Your task to perform on an android device: Search for bose soundlink mini on newegg.com, select the first entry, add it to the cart, then select checkout. Image 0: 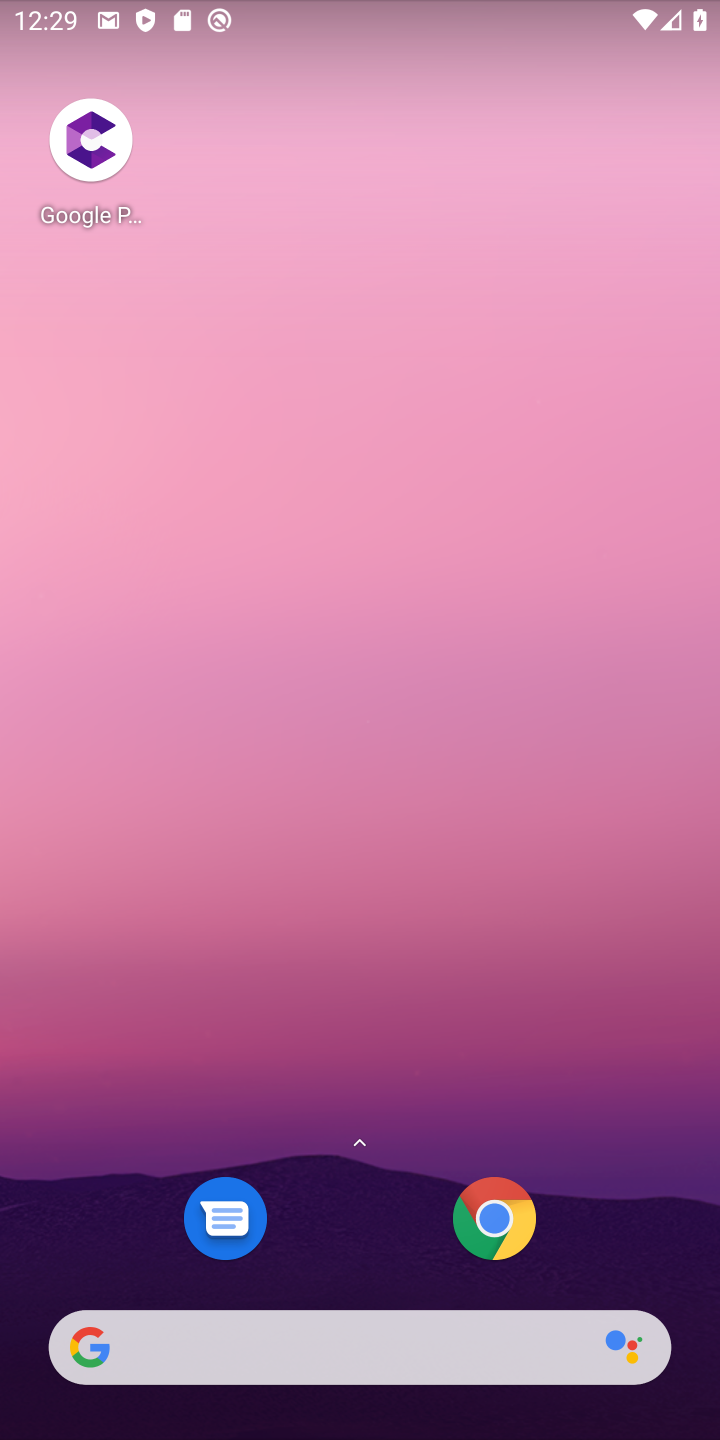
Step 0: drag from (393, 801) to (380, 153)
Your task to perform on an android device: Search for bose soundlink mini on newegg.com, select the first entry, add it to the cart, then select checkout. Image 1: 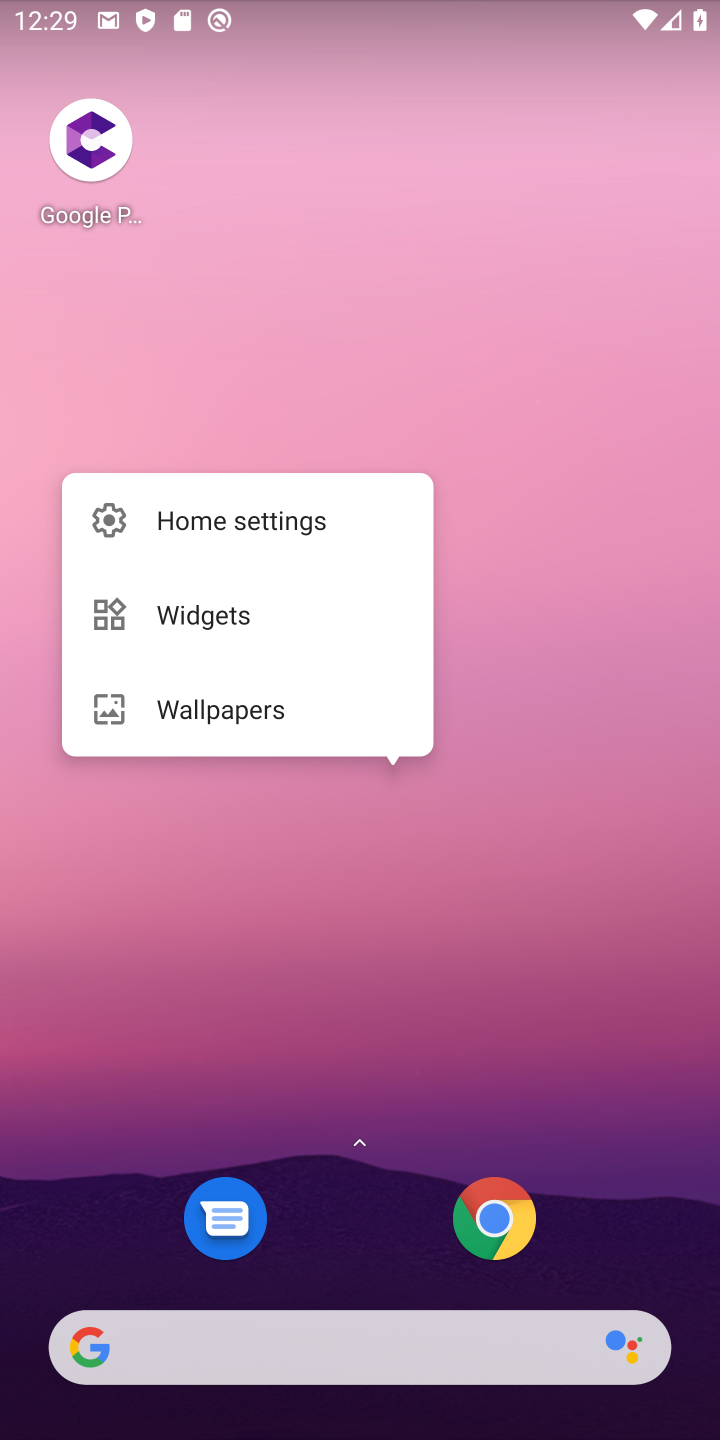
Step 1: click (650, 751)
Your task to perform on an android device: Search for bose soundlink mini on newegg.com, select the first entry, add it to the cart, then select checkout. Image 2: 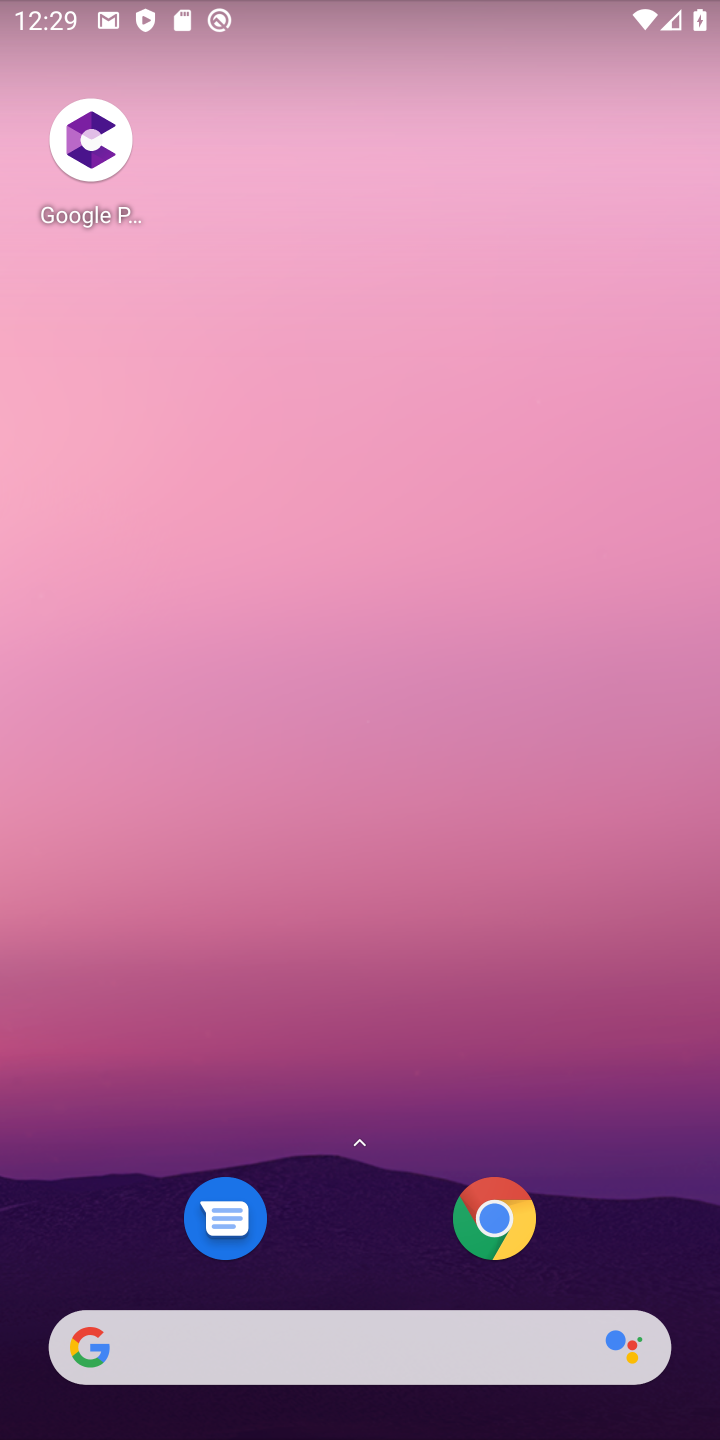
Step 2: drag from (376, 1243) to (675, 56)
Your task to perform on an android device: Search for bose soundlink mini on newegg.com, select the first entry, add it to the cart, then select checkout. Image 3: 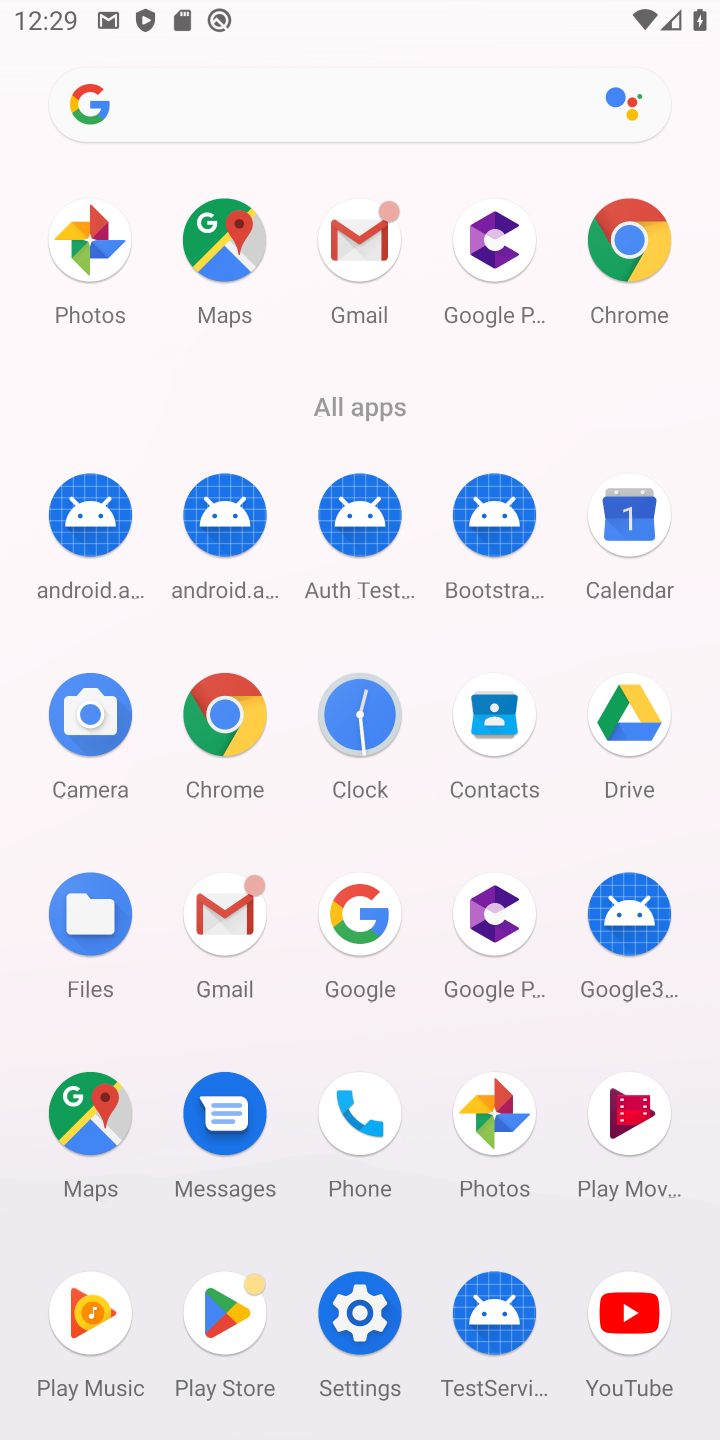
Step 3: click (191, 699)
Your task to perform on an android device: Search for bose soundlink mini on newegg.com, select the first entry, add it to the cart, then select checkout. Image 4: 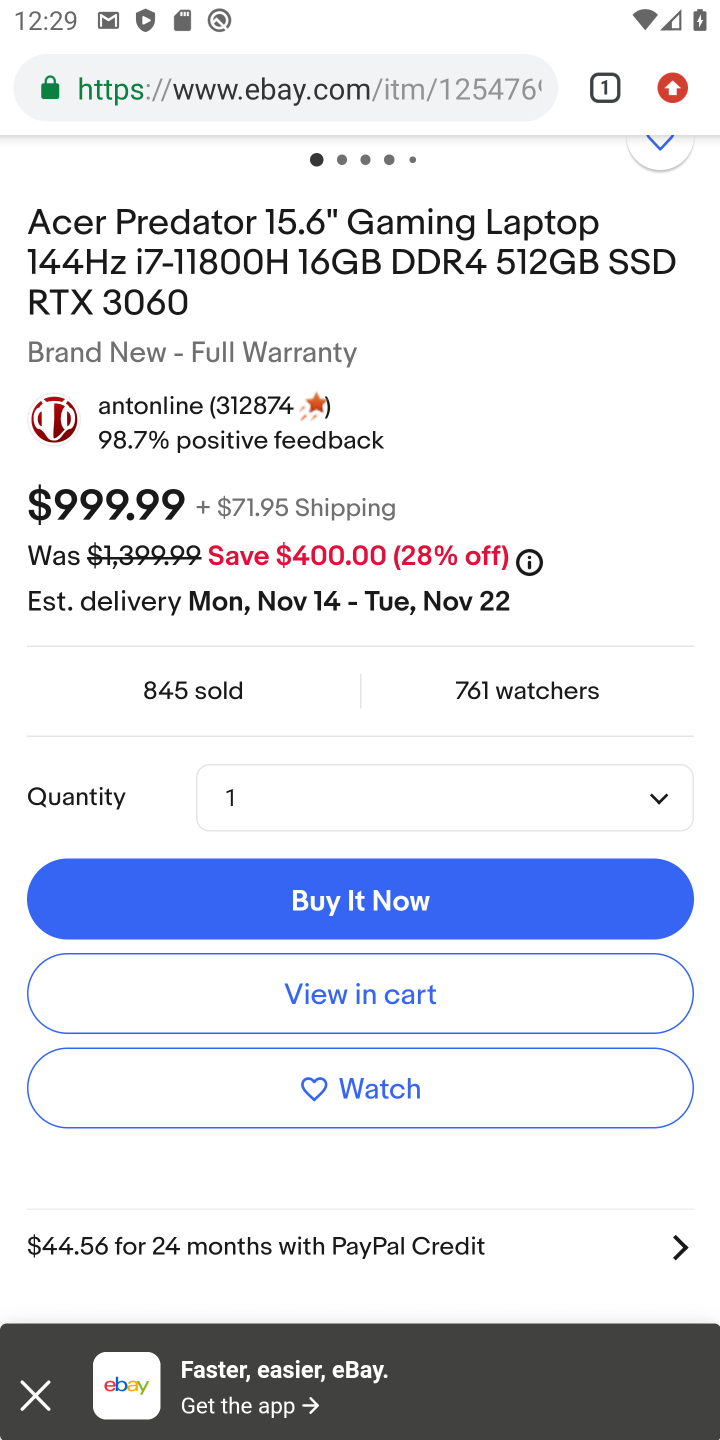
Step 4: drag from (345, 112) to (263, 939)
Your task to perform on an android device: Search for bose soundlink mini on newegg.com, select the first entry, add it to the cart, then select checkout. Image 5: 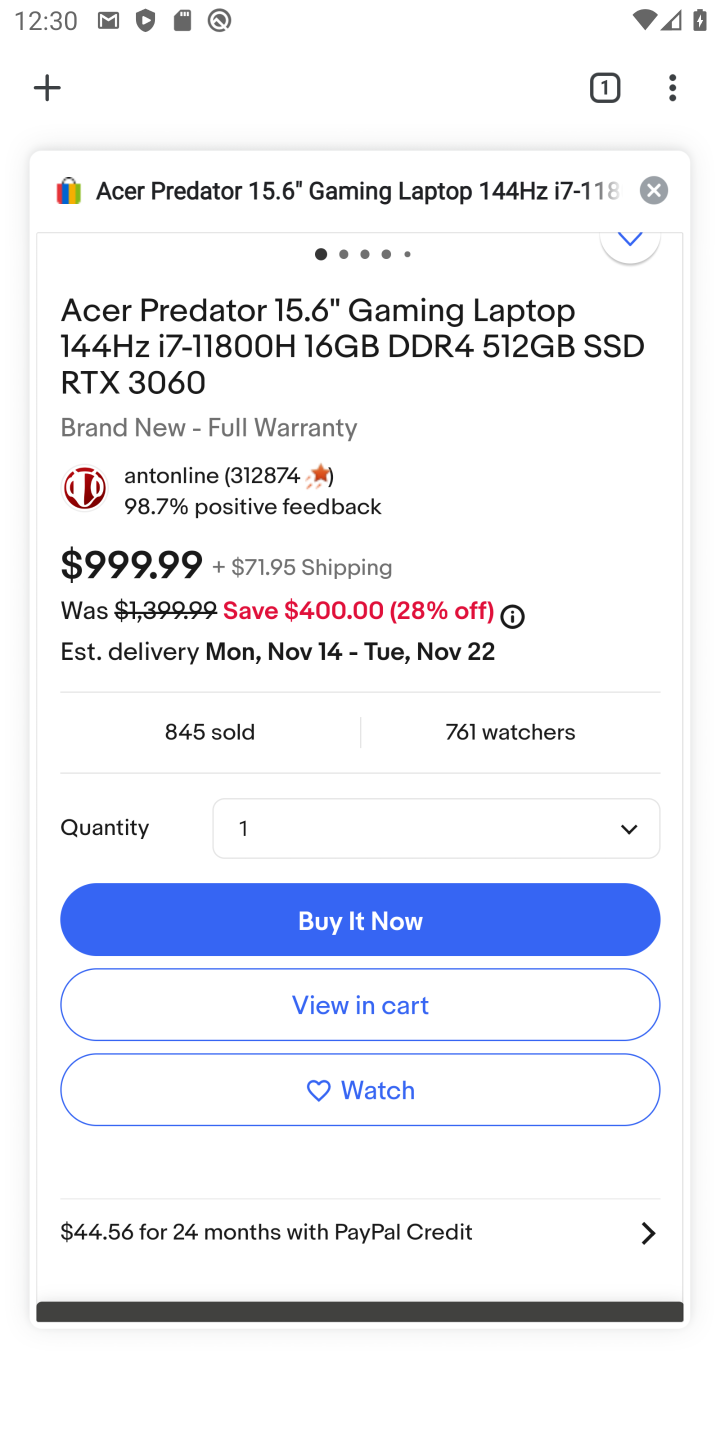
Step 5: click (220, 89)
Your task to perform on an android device: Search for bose soundlink mini on newegg.com, select the first entry, add it to the cart, then select checkout. Image 6: 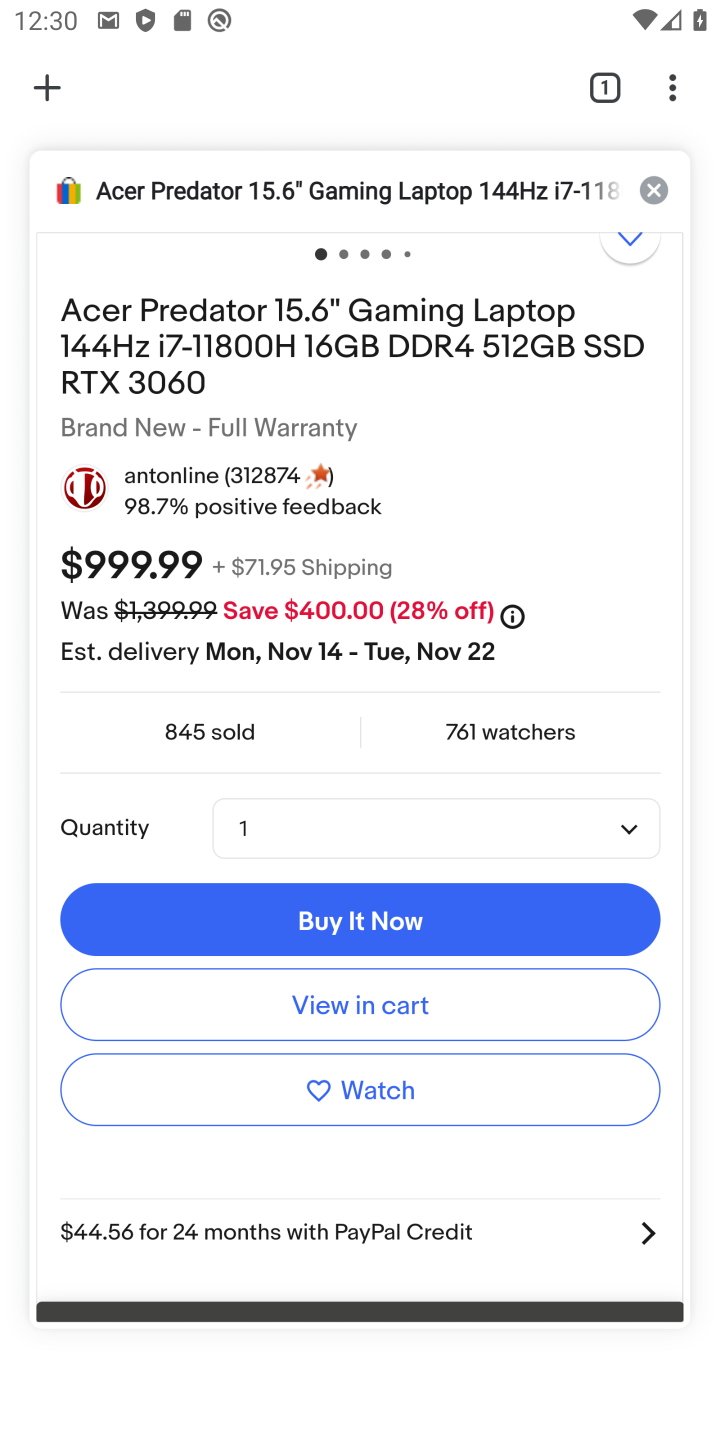
Step 6: click (544, 460)
Your task to perform on an android device: Search for bose soundlink mini on newegg.com, select the first entry, add it to the cart, then select checkout. Image 7: 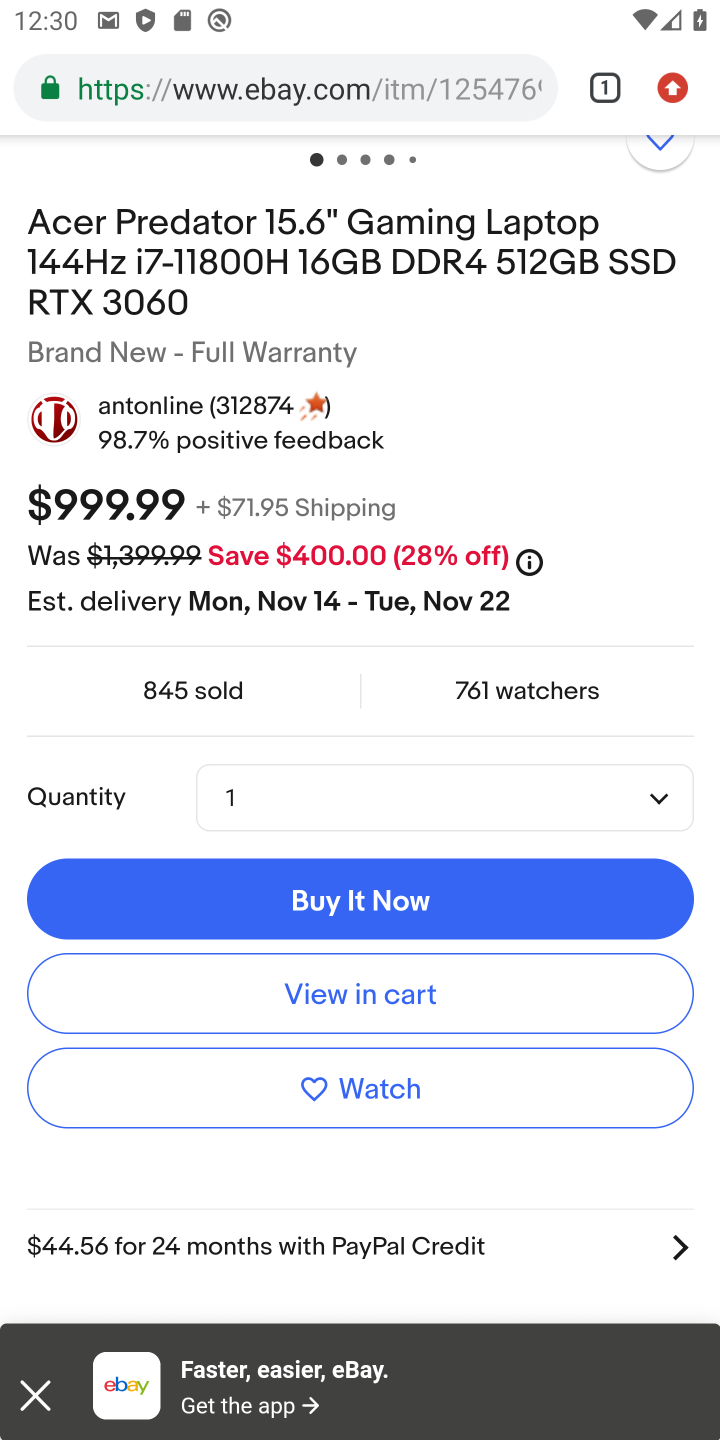
Step 7: click (238, 92)
Your task to perform on an android device: Search for bose soundlink mini on newegg.com, select the first entry, add it to the cart, then select checkout. Image 8: 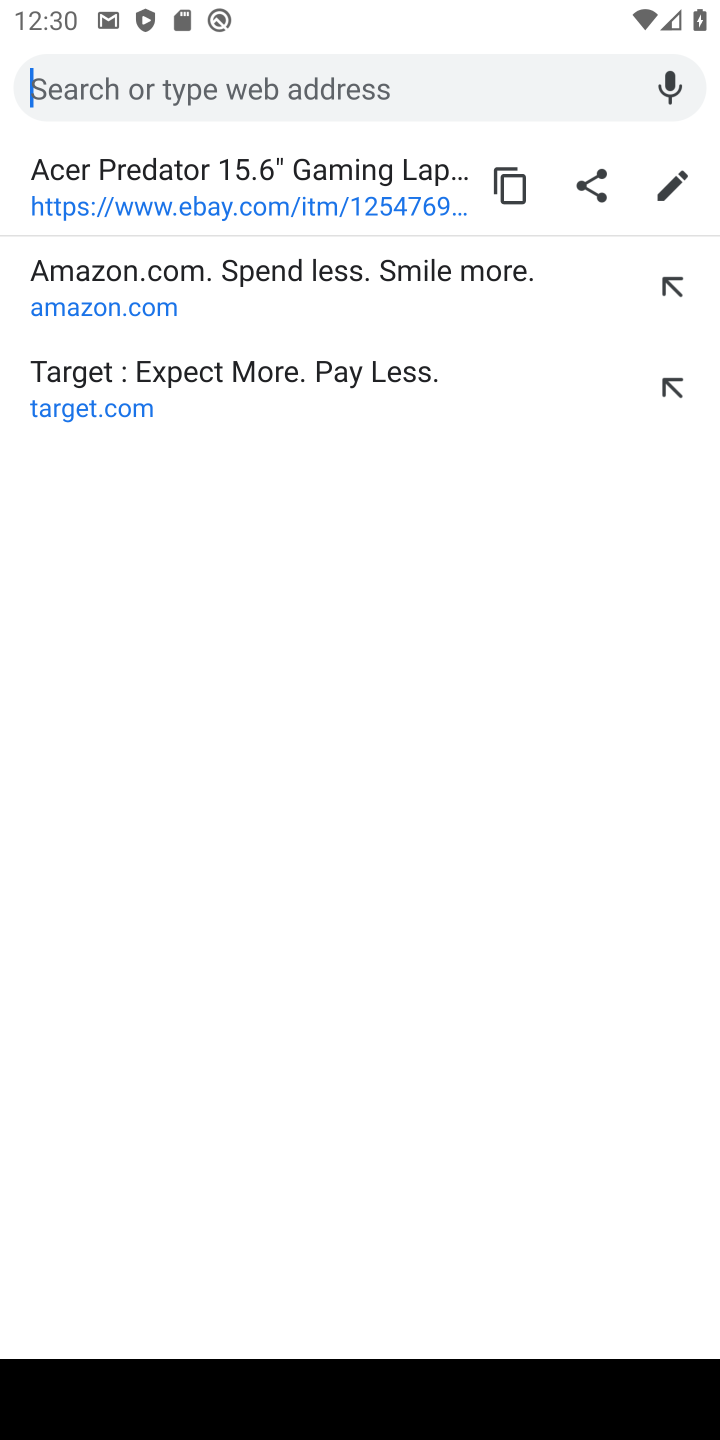
Step 8: click (233, 86)
Your task to perform on an android device: Search for bose soundlink mini on newegg.com, select the first entry, add it to the cart, then select checkout. Image 9: 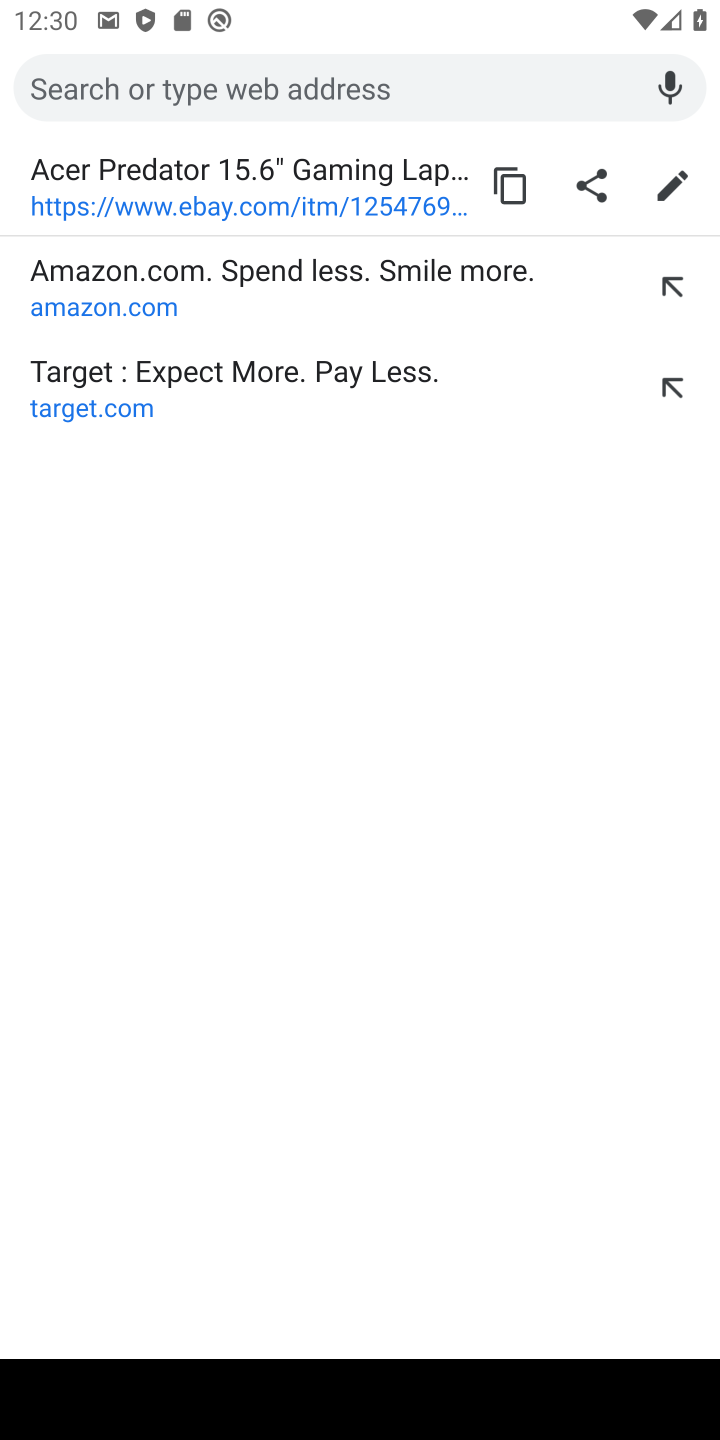
Step 9: type "newegg.com"
Your task to perform on an android device: Search for bose soundlink mini on newegg.com, select the first entry, add it to the cart, then select checkout. Image 10: 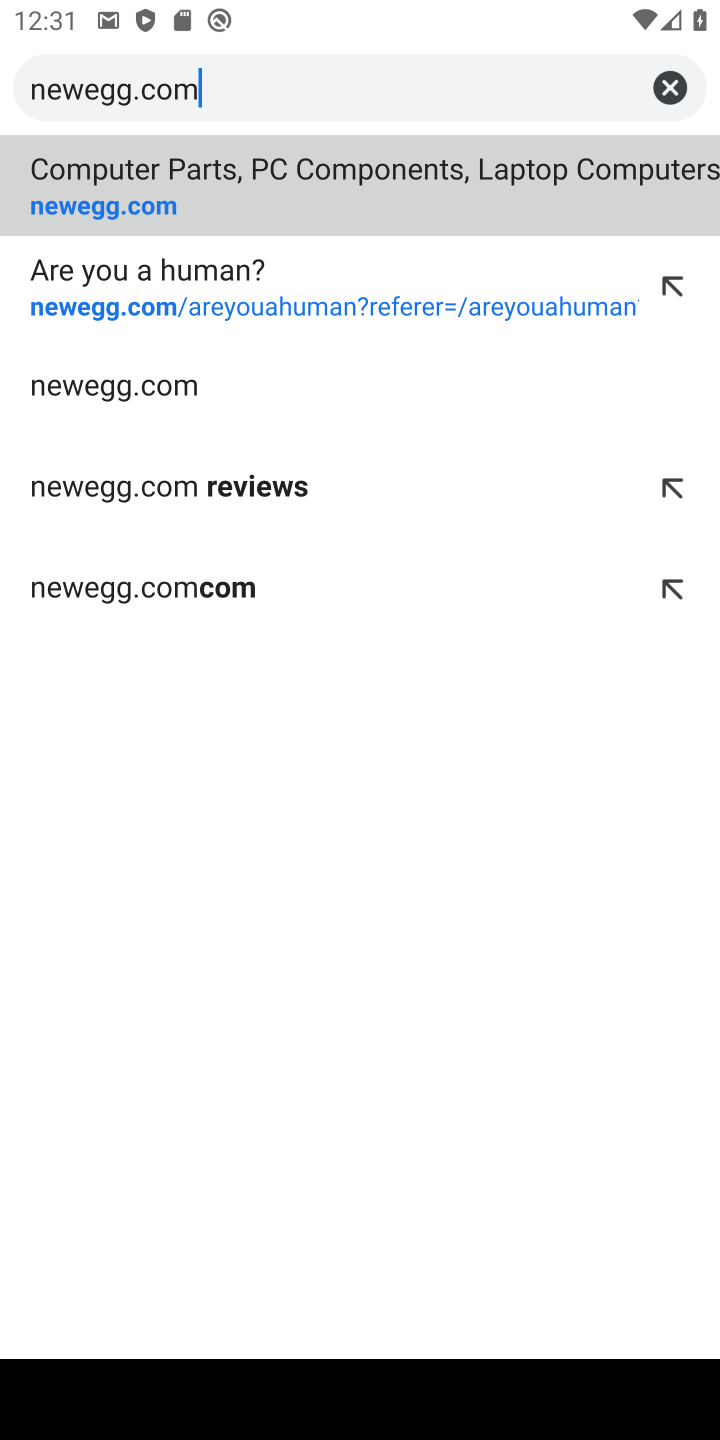
Step 10: click (87, 199)
Your task to perform on an android device: Search for bose soundlink mini on newegg.com, select the first entry, add it to the cart, then select checkout. Image 11: 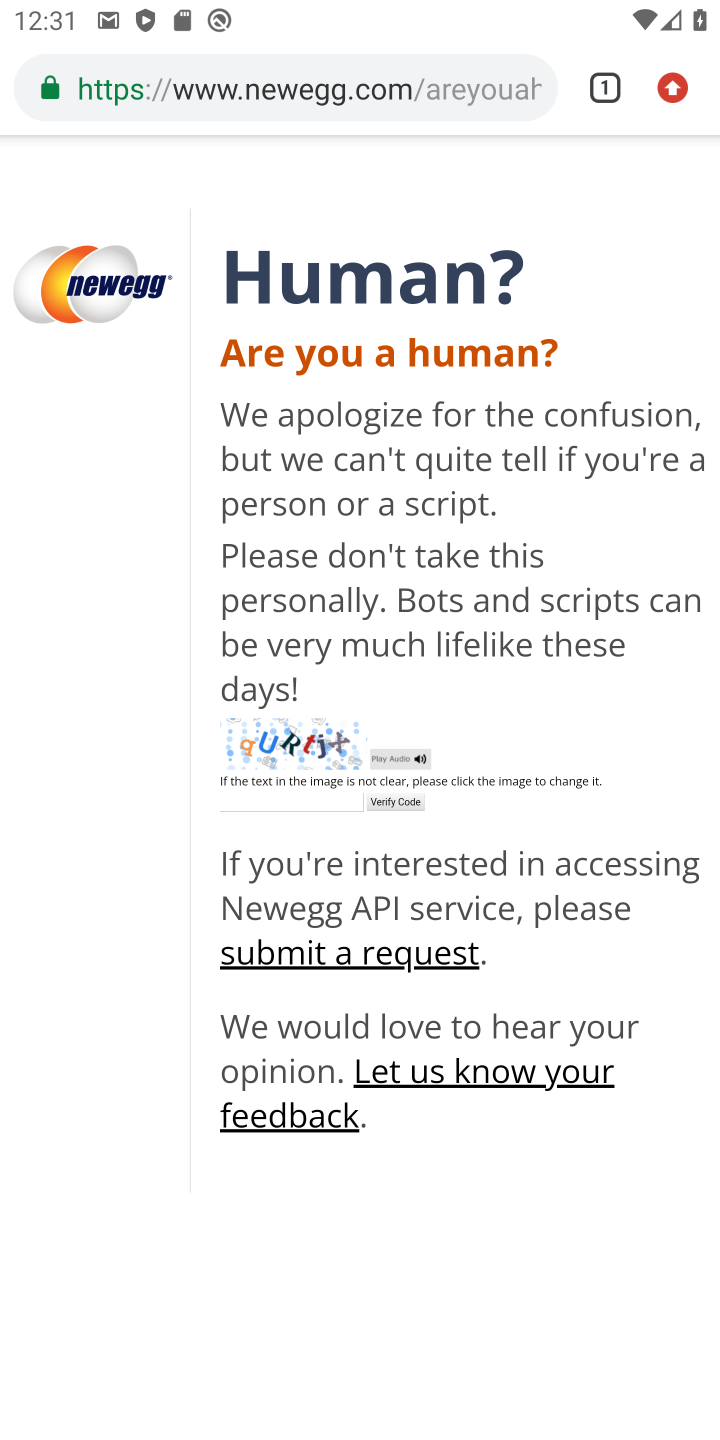
Step 11: click (401, 78)
Your task to perform on an android device: Search for bose soundlink mini on newegg.com, select the first entry, add it to the cart, then select checkout. Image 12: 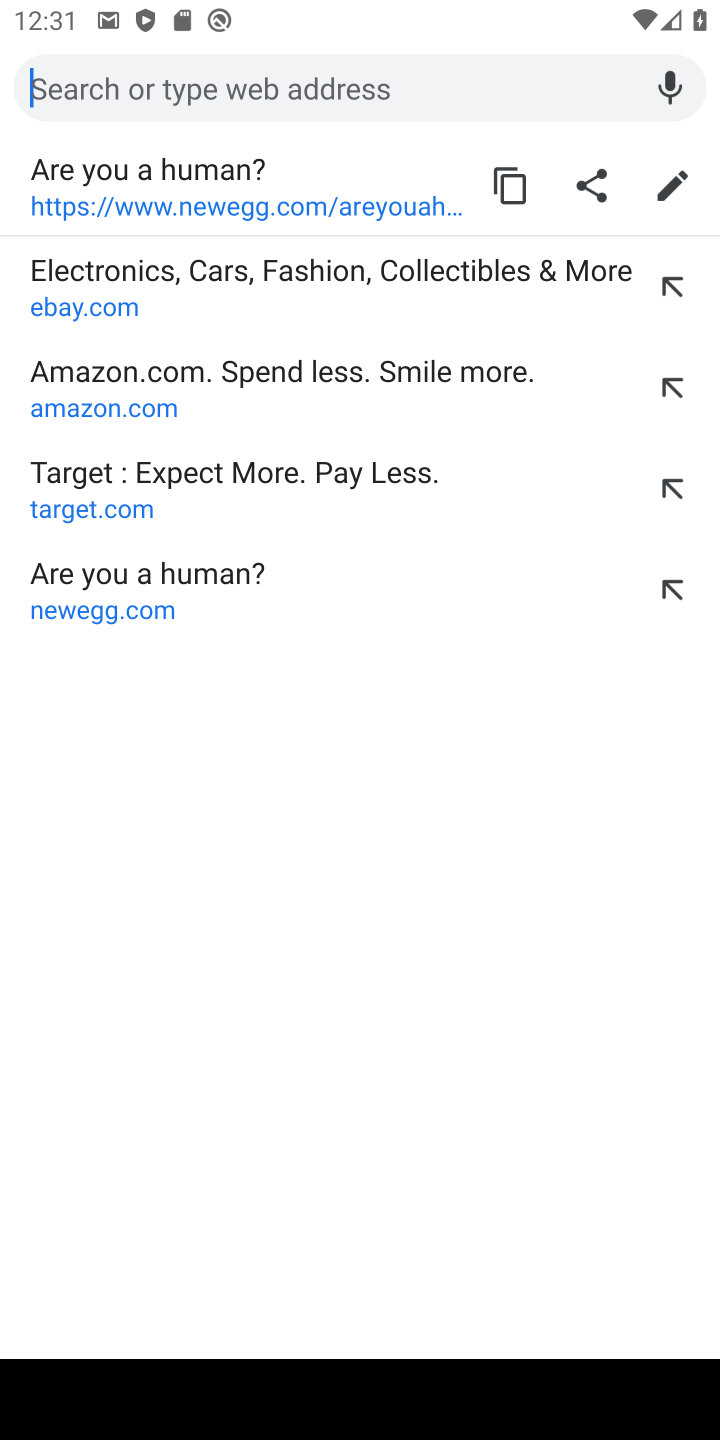
Step 12: click (104, 607)
Your task to perform on an android device: Search for bose soundlink mini on newegg.com, select the first entry, add it to the cart, then select checkout. Image 13: 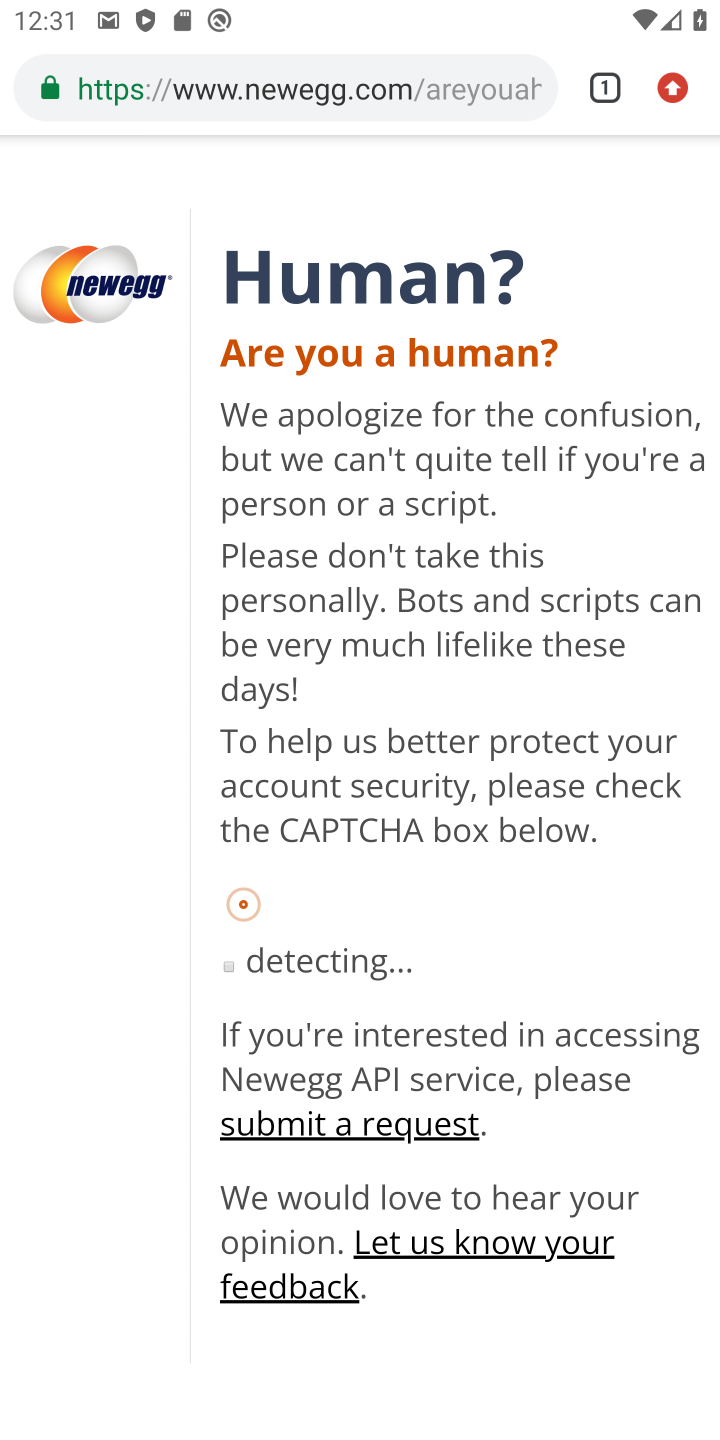
Step 13: click (144, 607)
Your task to perform on an android device: Search for bose soundlink mini on newegg.com, select the first entry, add it to the cart, then select checkout. Image 14: 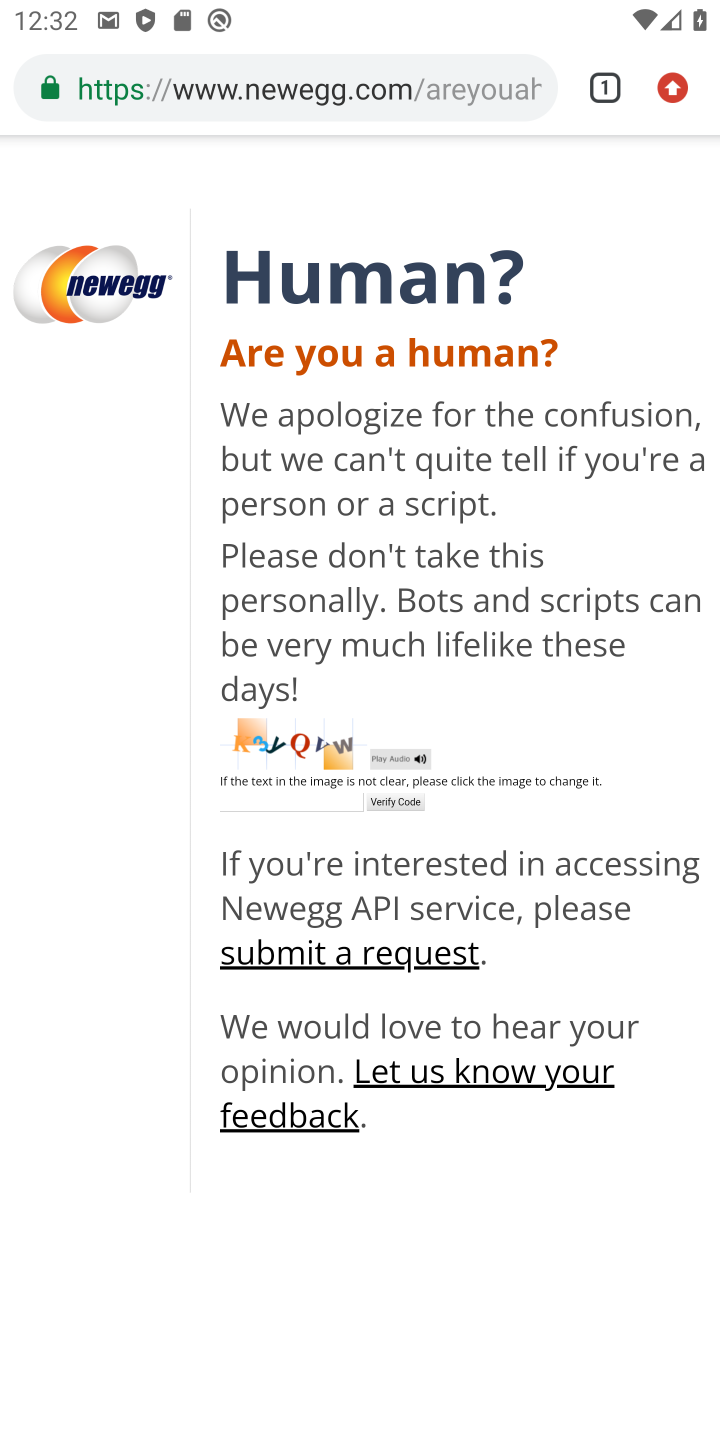
Step 14: click (275, 95)
Your task to perform on an android device: Search for bose soundlink mini on newegg.com, select the first entry, add it to the cart, then select checkout. Image 15: 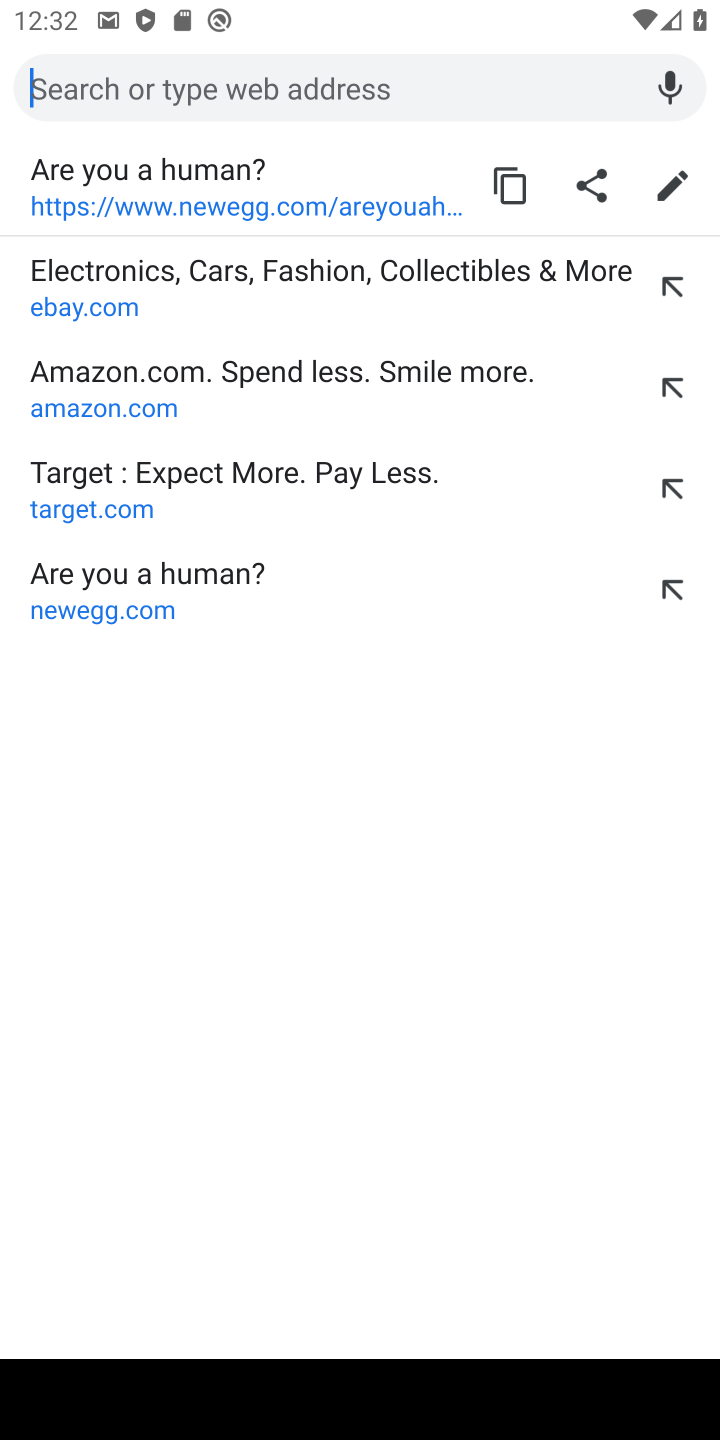
Step 15: click (101, 612)
Your task to perform on an android device: Search for bose soundlink mini on newegg.com, select the first entry, add it to the cart, then select checkout. Image 16: 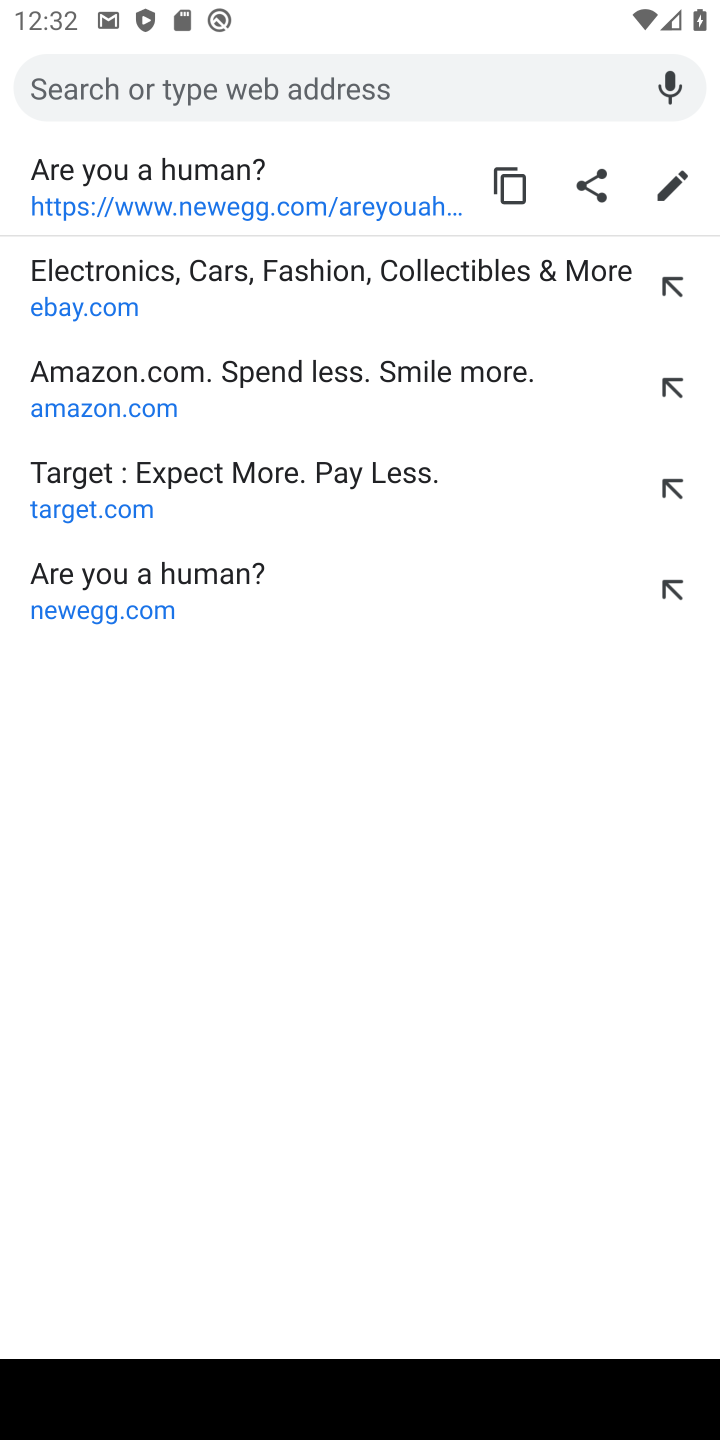
Step 16: click (111, 602)
Your task to perform on an android device: Search for bose soundlink mini on newegg.com, select the first entry, add it to the cart, then select checkout. Image 17: 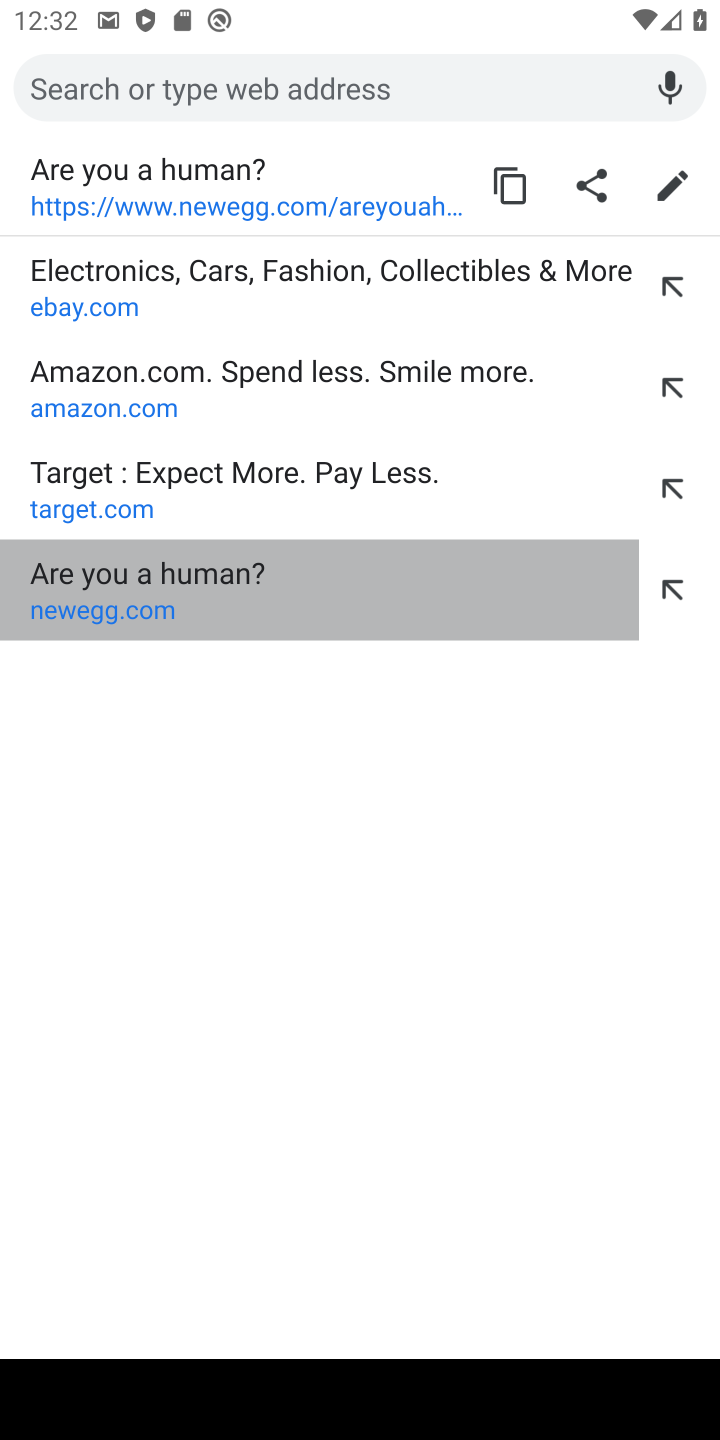
Step 17: click (98, 600)
Your task to perform on an android device: Search for bose soundlink mini on newegg.com, select the first entry, add it to the cart, then select checkout. Image 18: 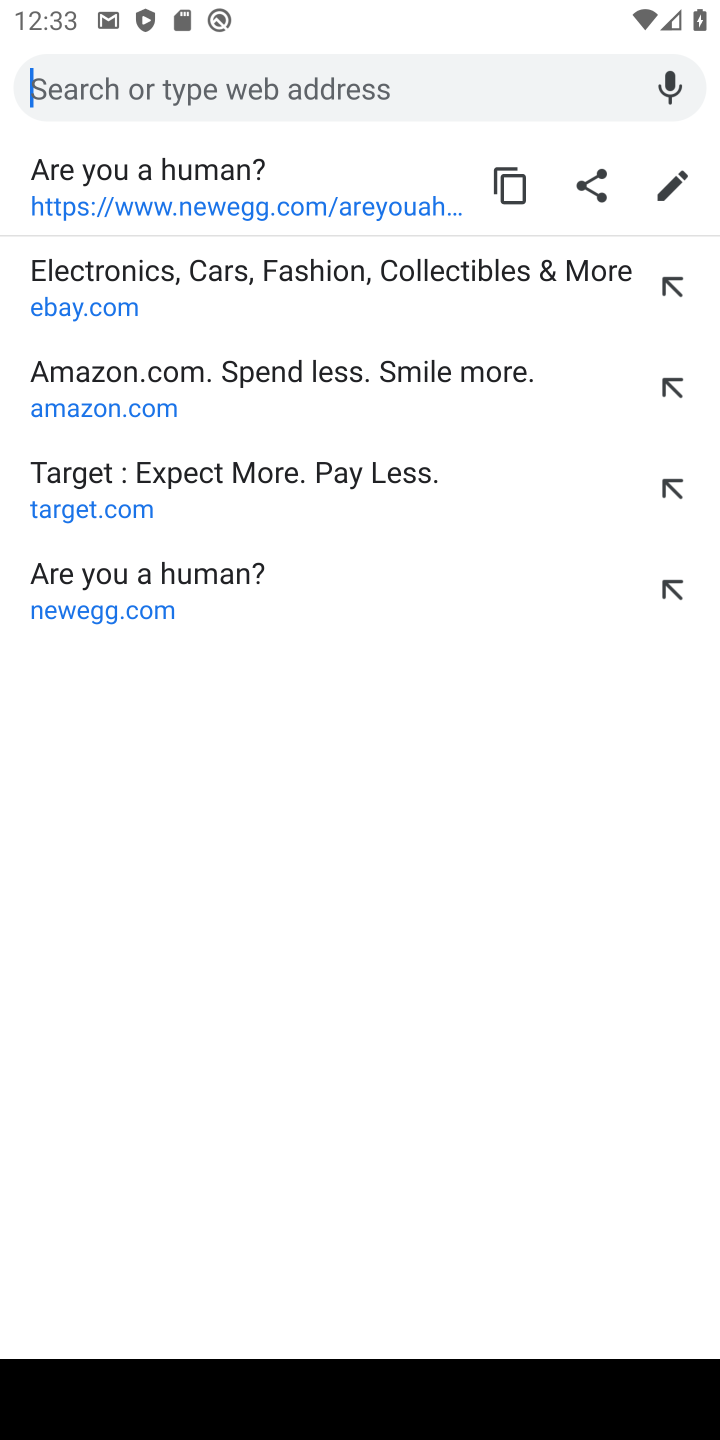
Step 18: click (74, 603)
Your task to perform on an android device: Search for bose soundlink mini on newegg.com, select the first entry, add it to the cart, then select checkout. Image 19: 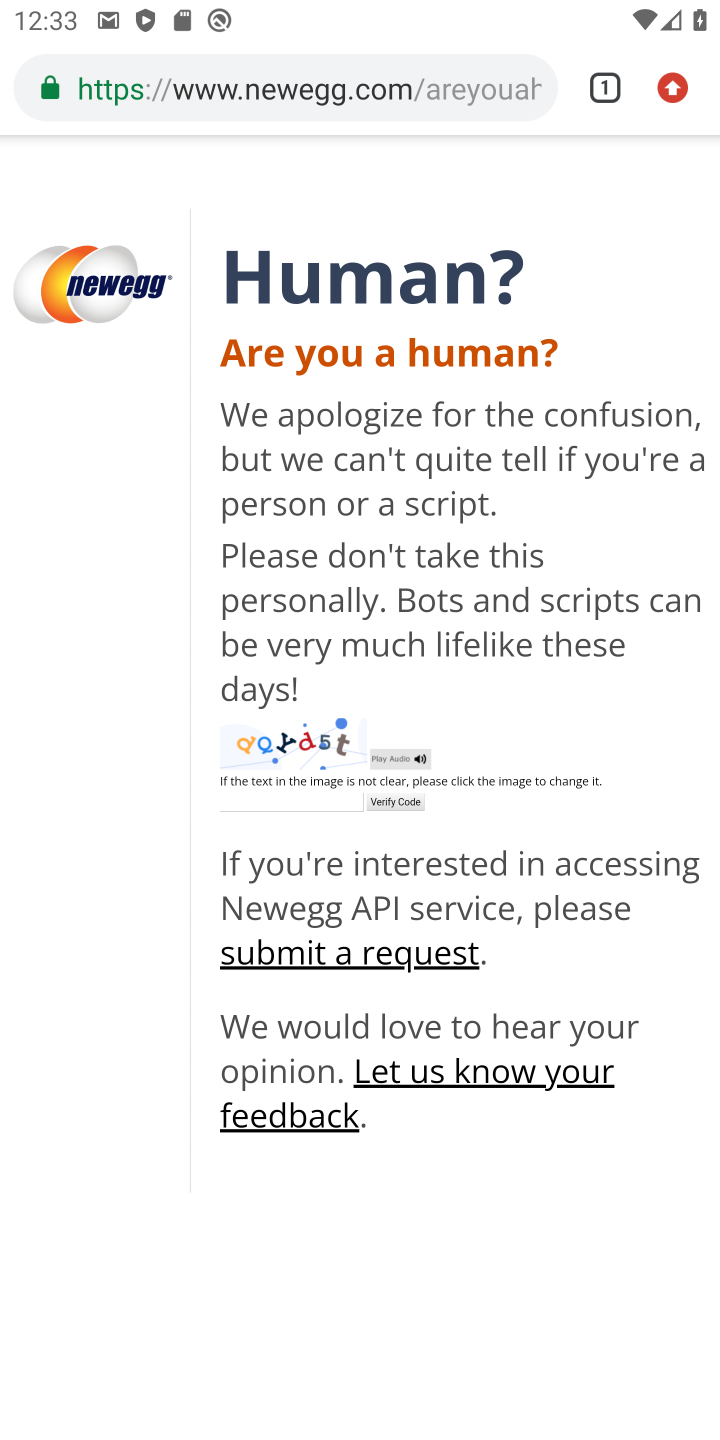
Step 19: task complete